Your task to perform on an android device: Do I have any events tomorrow? Image 0: 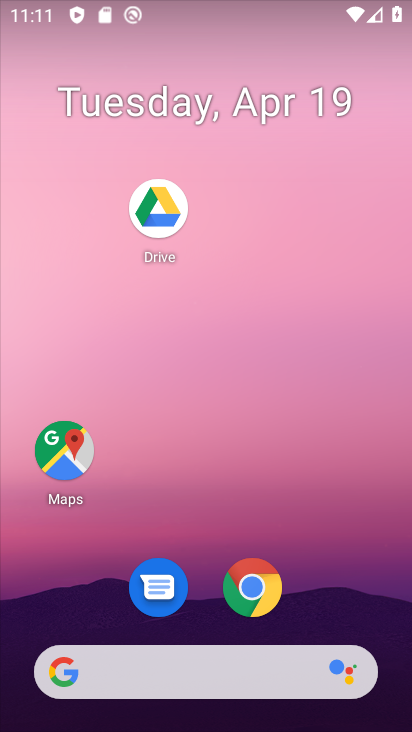
Step 0: drag from (333, 580) to (297, 148)
Your task to perform on an android device: Do I have any events tomorrow? Image 1: 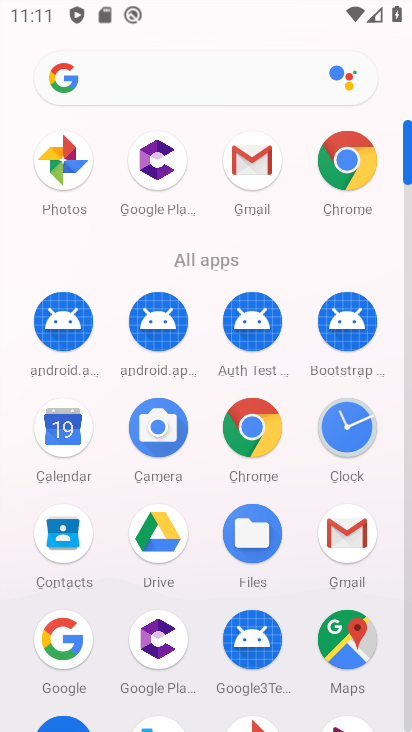
Step 1: click (58, 451)
Your task to perform on an android device: Do I have any events tomorrow? Image 2: 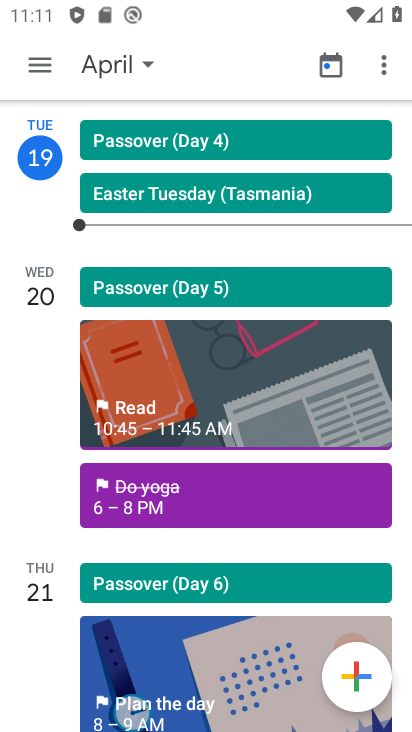
Step 2: click (92, 68)
Your task to perform on an android device: Do I have any events tomorrow? Image 3: 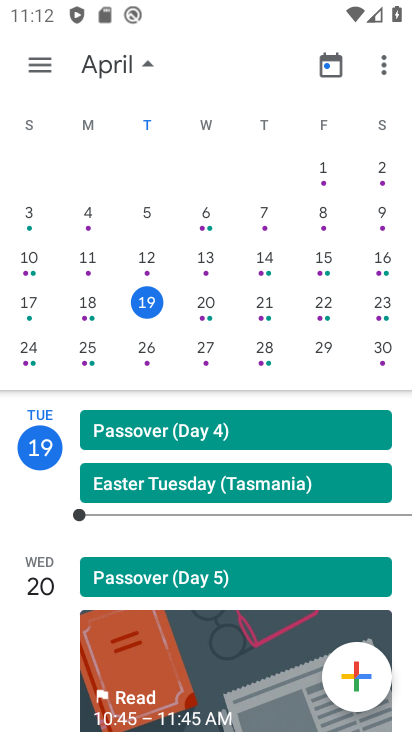
Step 3: click (200, 309)
Your task to perform on an android device: Do I have any events tomorrow? Image 4: 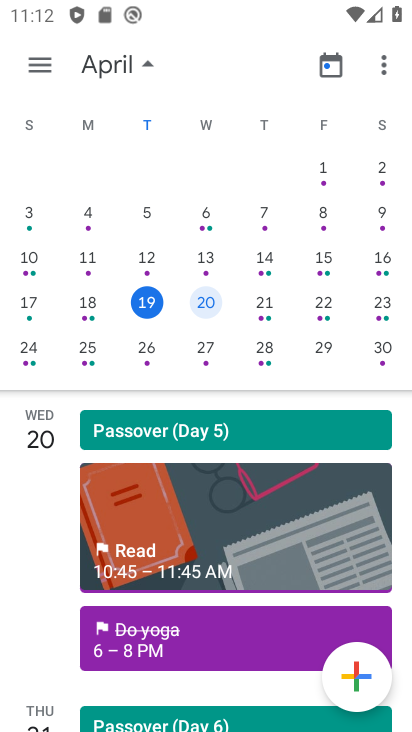
Step 4: task complete